Your task to perform on an android device: open a bookmark in the chrome app Image 0: 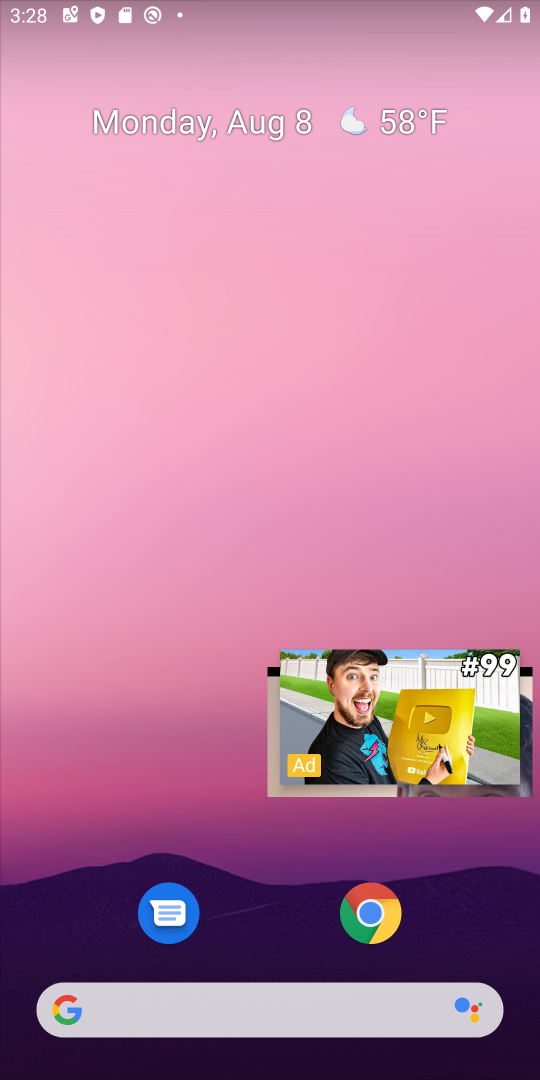
Step 0: press home button
Your task to perform on an android device: open a bookmark in the chrome app Image 1: 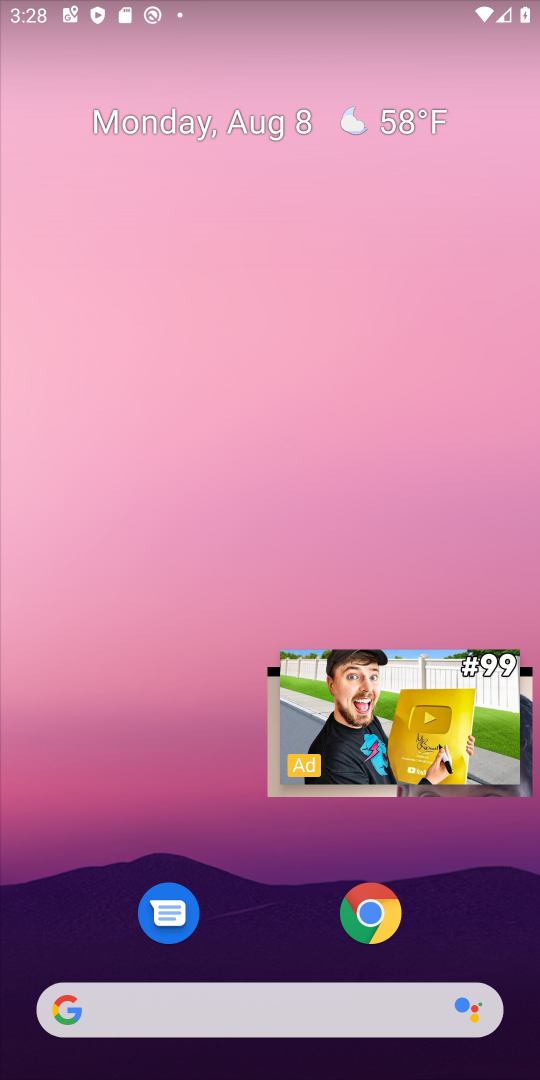
Step 1: drag from (76, 933) to (121, 288)
Your task to perform on an android device: open a bookmark in the chrome app Image 2: 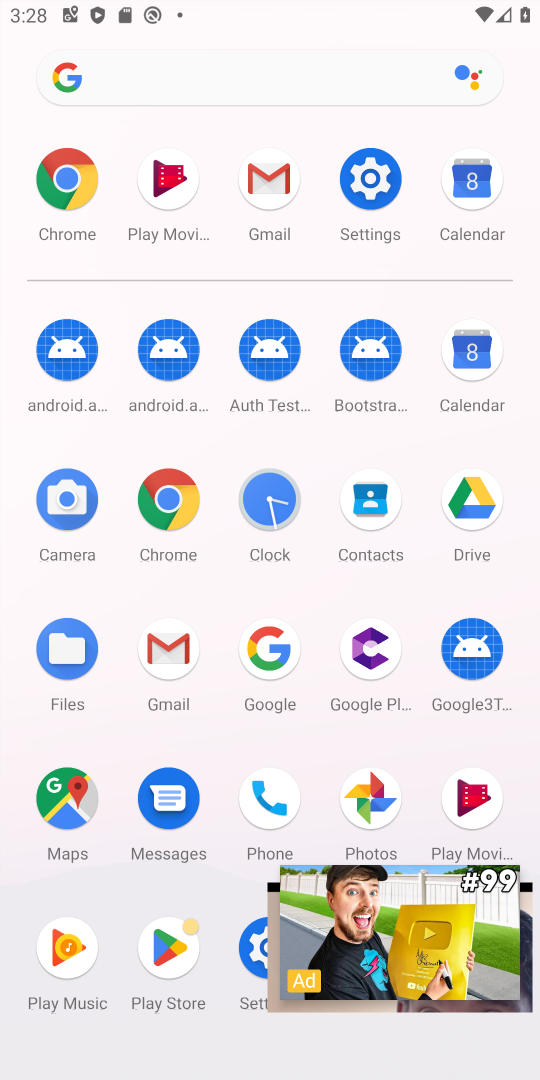
Step 2: click (160, 514)
Your task to perform on an android device: open a bookmark in the chrome app Image 3: 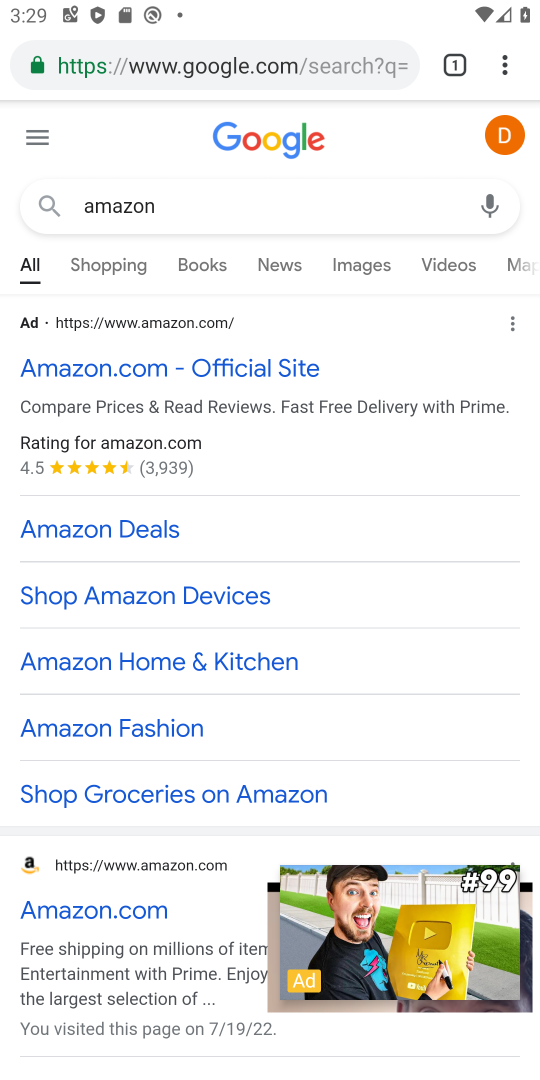
Step 3: click (508, 64)
Your task to perform on an android device: open a bookmark in the chrome app Image 4: 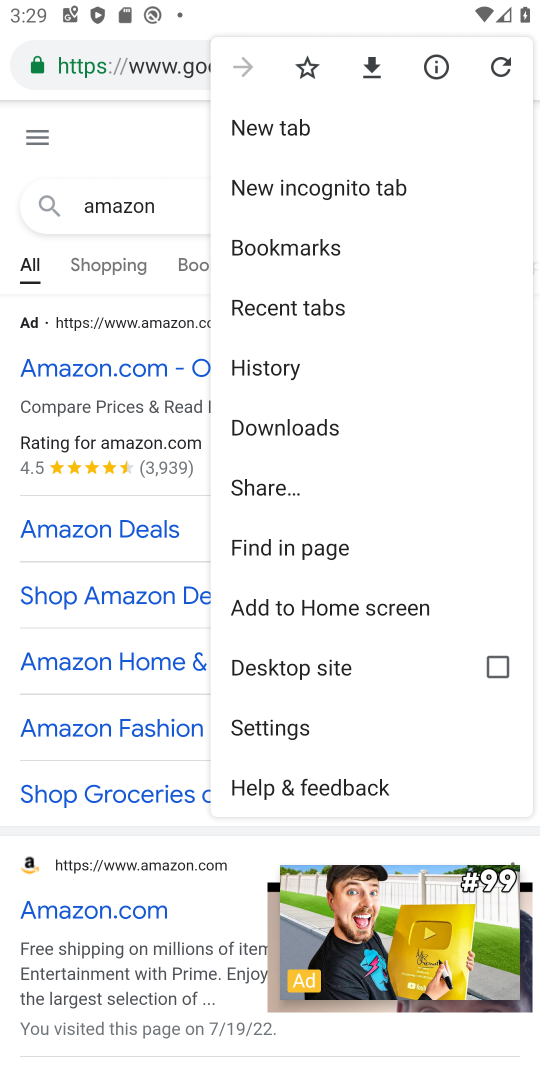
Step 4: click (334, 243)
Your task to perform on an android device: open a bookmark in the chrome app Image 5: 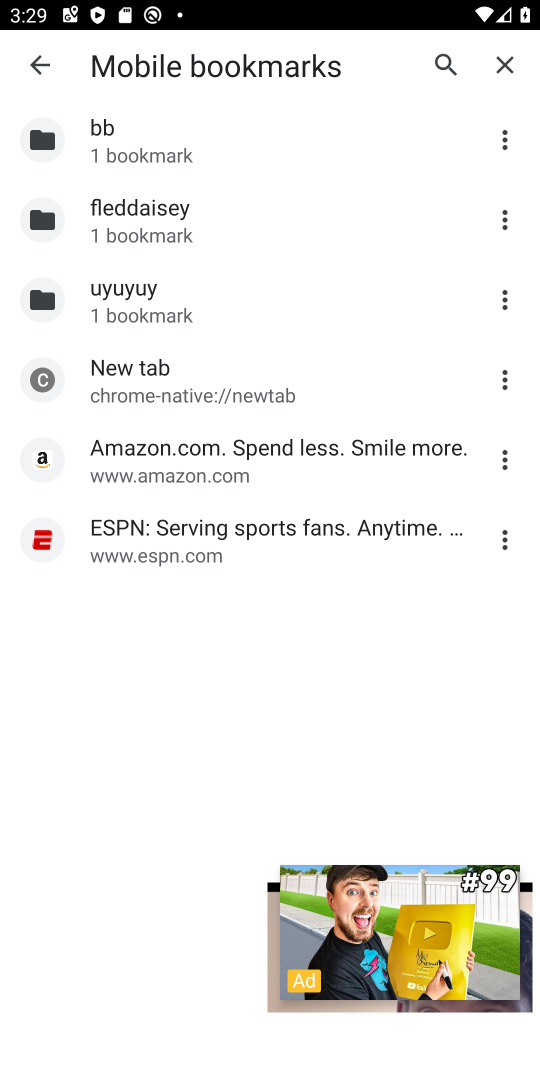
Step 5: click (158, 450)
Your task to perform on an android device: open a bookmark in the chrome app Image 6: 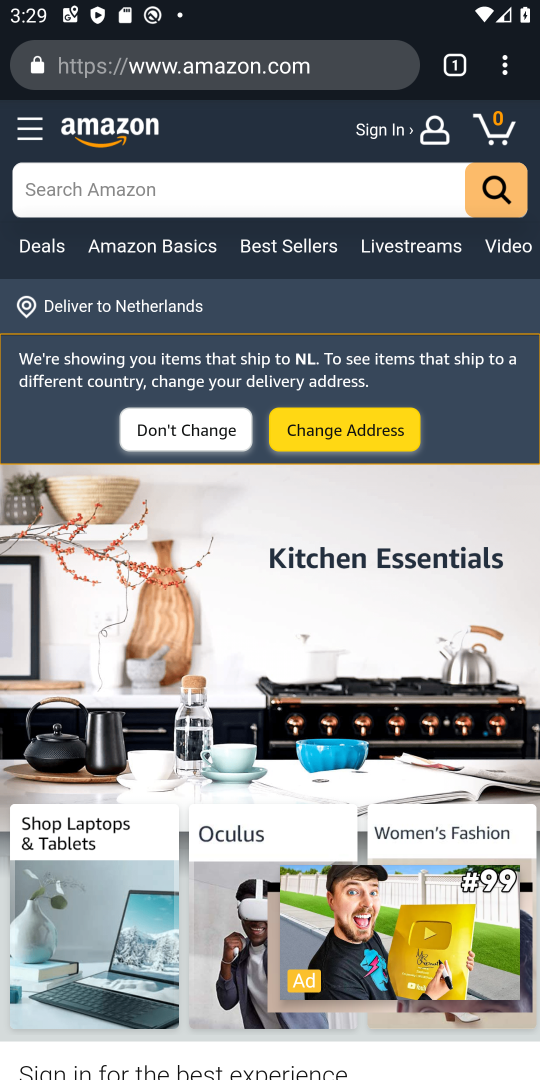
Step 6: task complete